Your task to perform on an android device: Open Yahoo.com Image 0: 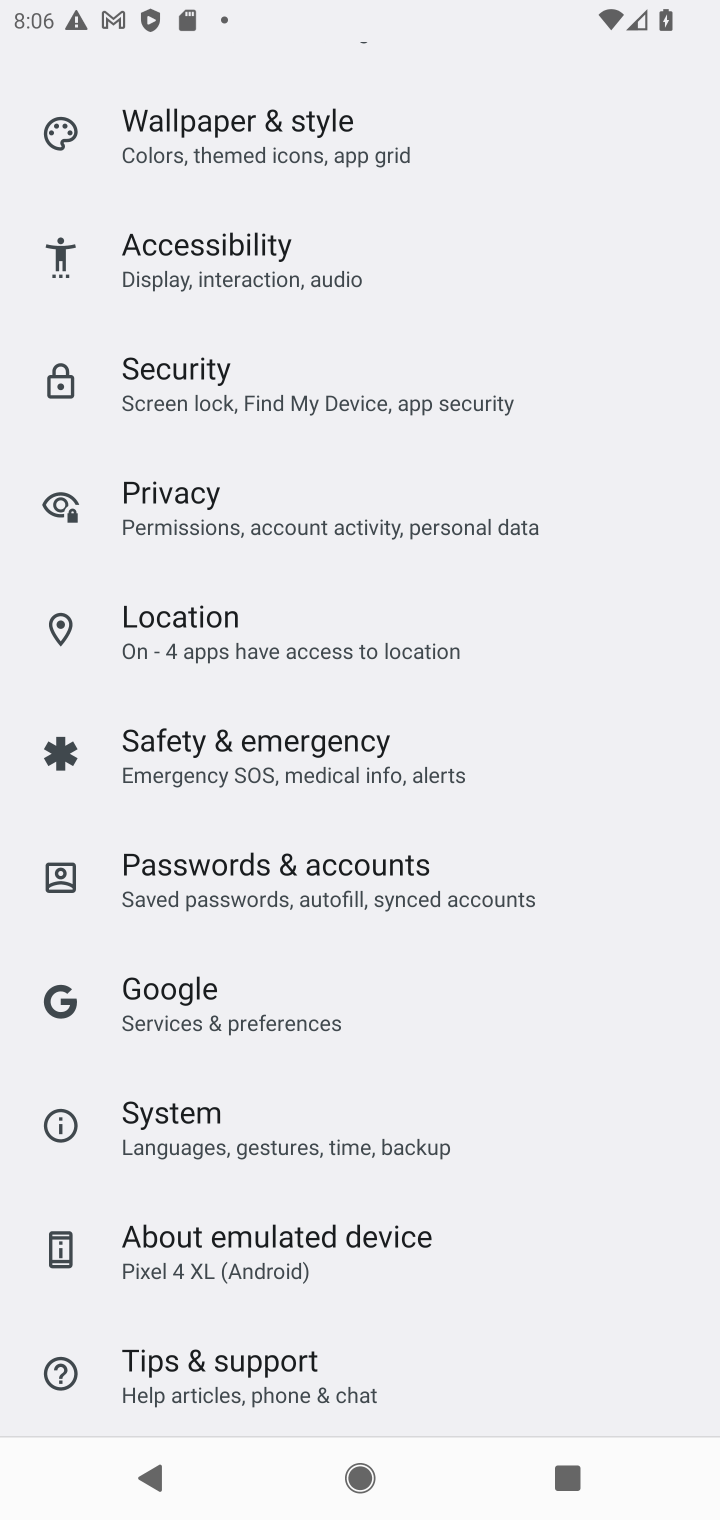
Step 0: press back button
Your task to perform on an android device: Open Yahoo.com Image 1: 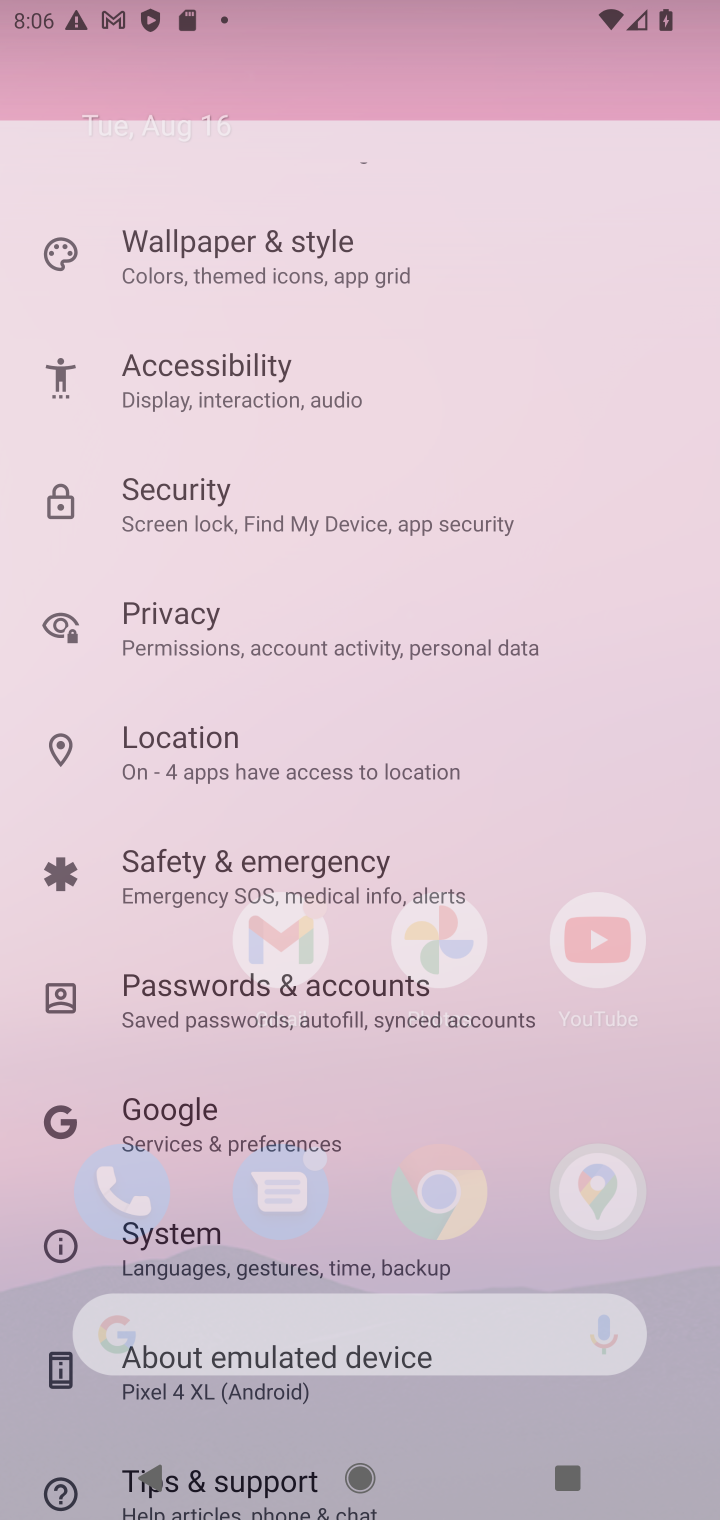
Step 1: press home button
Your task to perform on an android device: Open Yahoo.com Image 2: 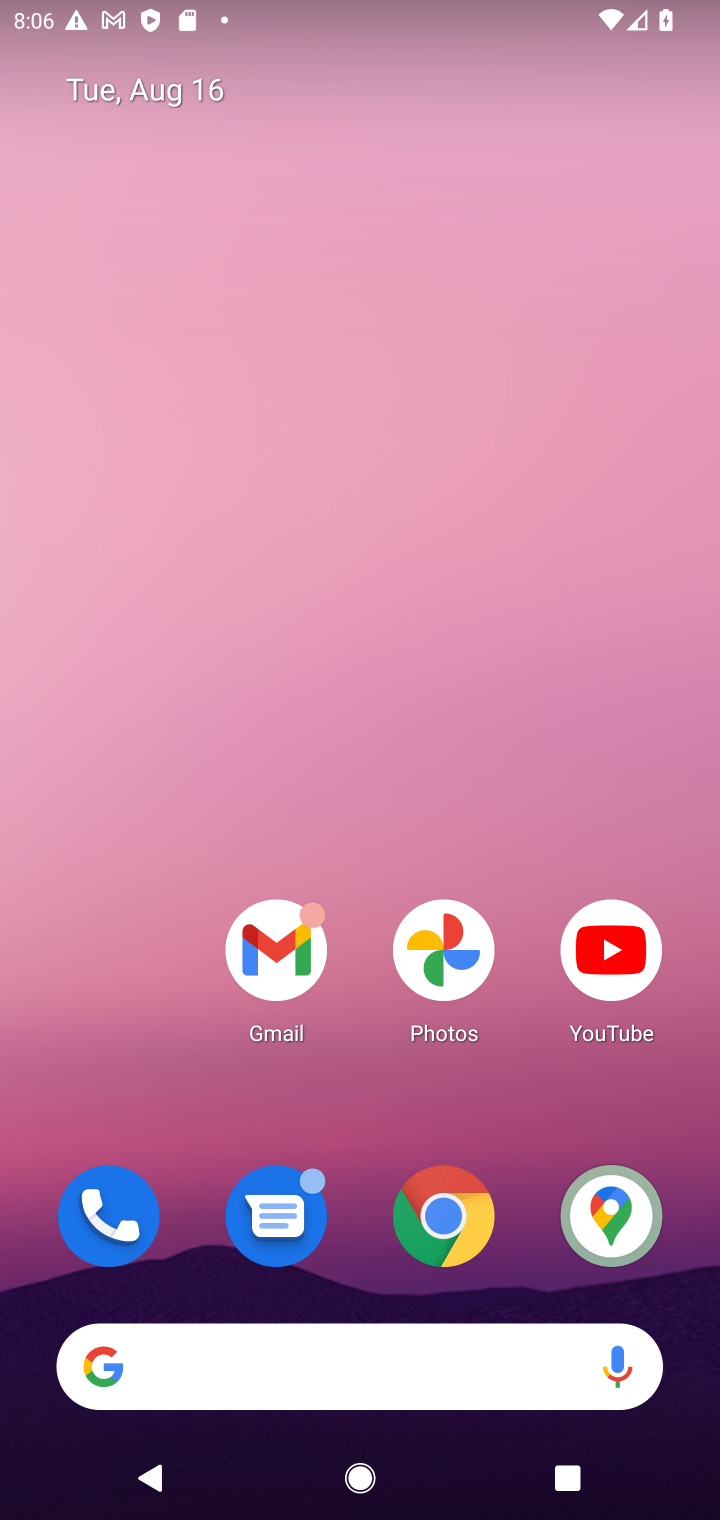
Step 2: click (426, 1251)
Your task to perform on an android device: Open Yahoo.com Image 3: 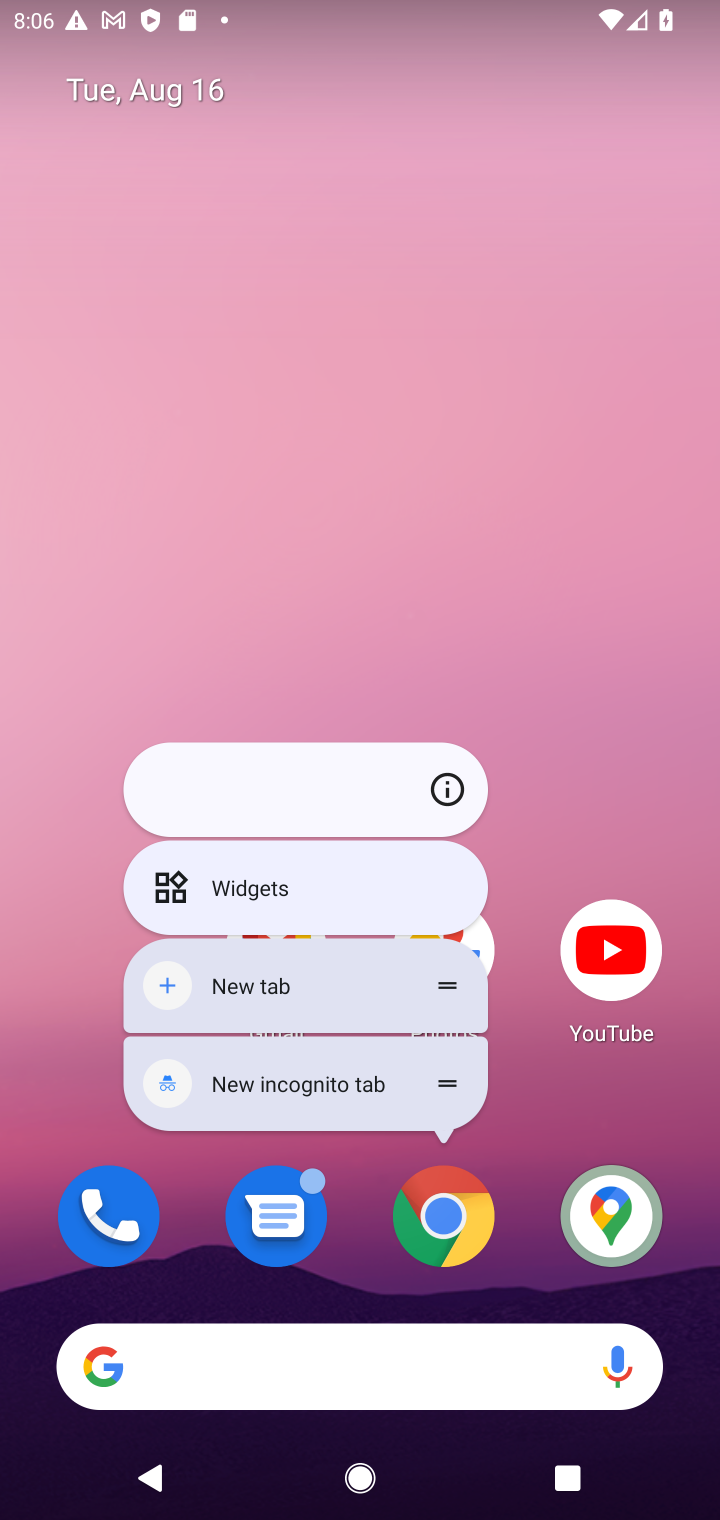
Step 3: click (427, 1203)
Your task to perform on an android device: Open Yahoo.com Image 4: 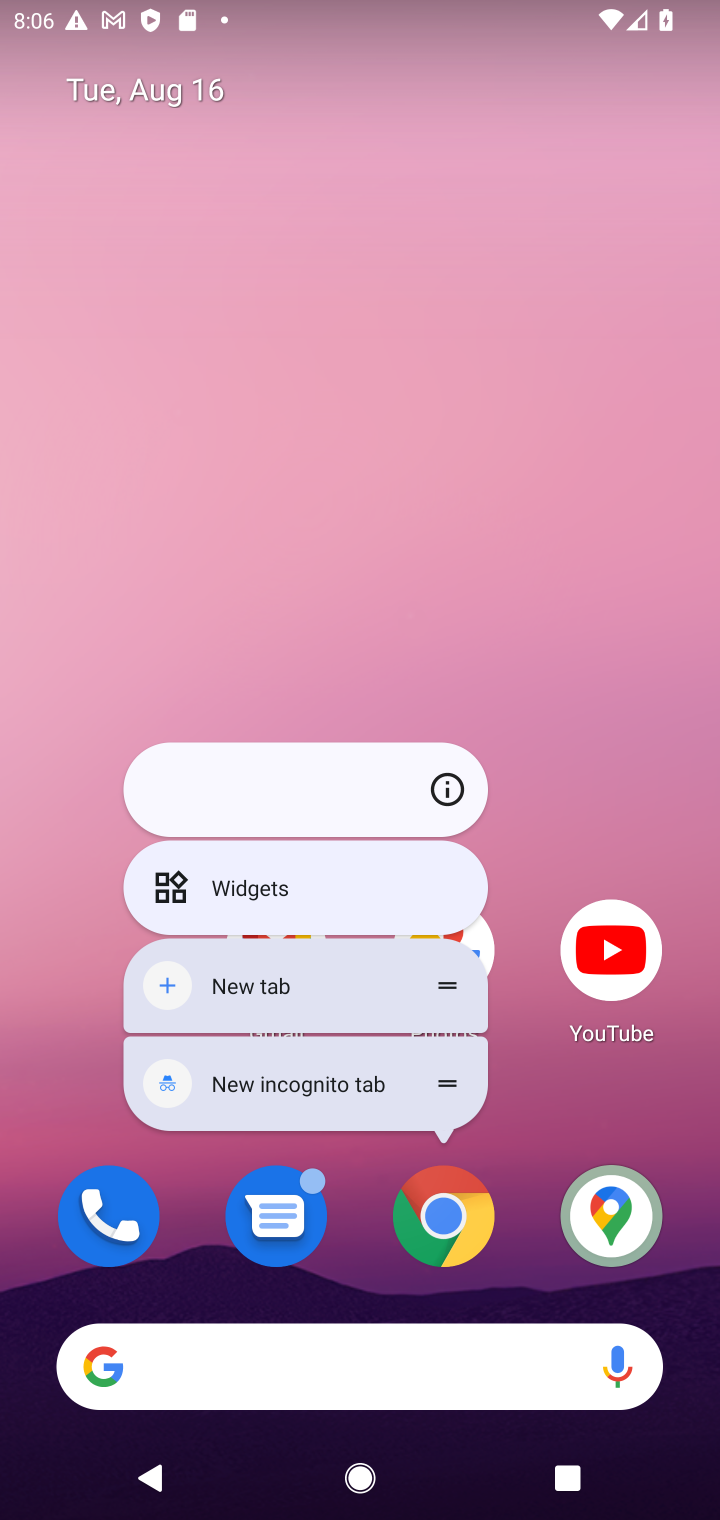
Step 4: click (445, 1222)
Your task to perform on an android device: Open Yahoo.com Image 5: 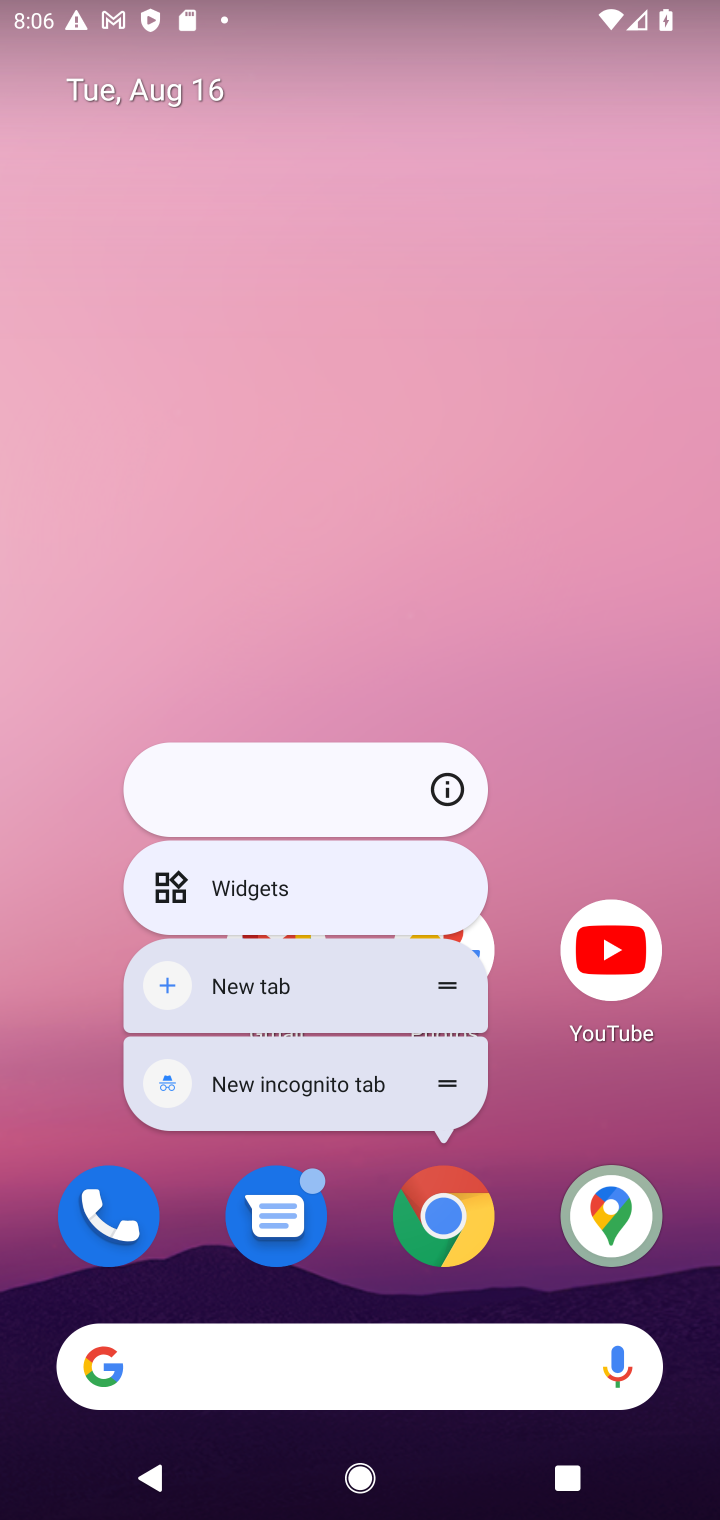
Step 5: click (462, 1237)
Your task to perform on an android device: Open Yahoo.com Image 6: 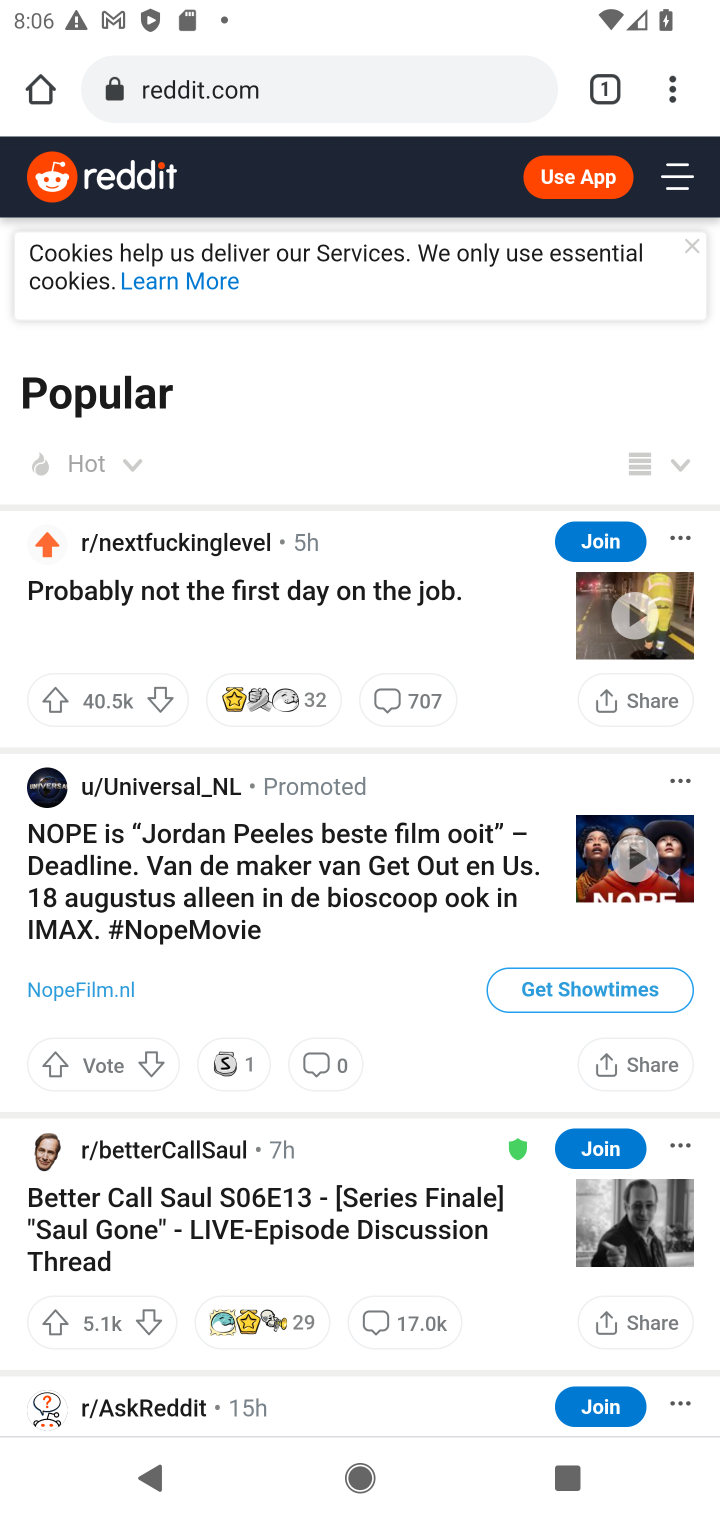
Step 6: click (599, 93)
Your task to perform on an android device: Open Yahoo.com Image 7: 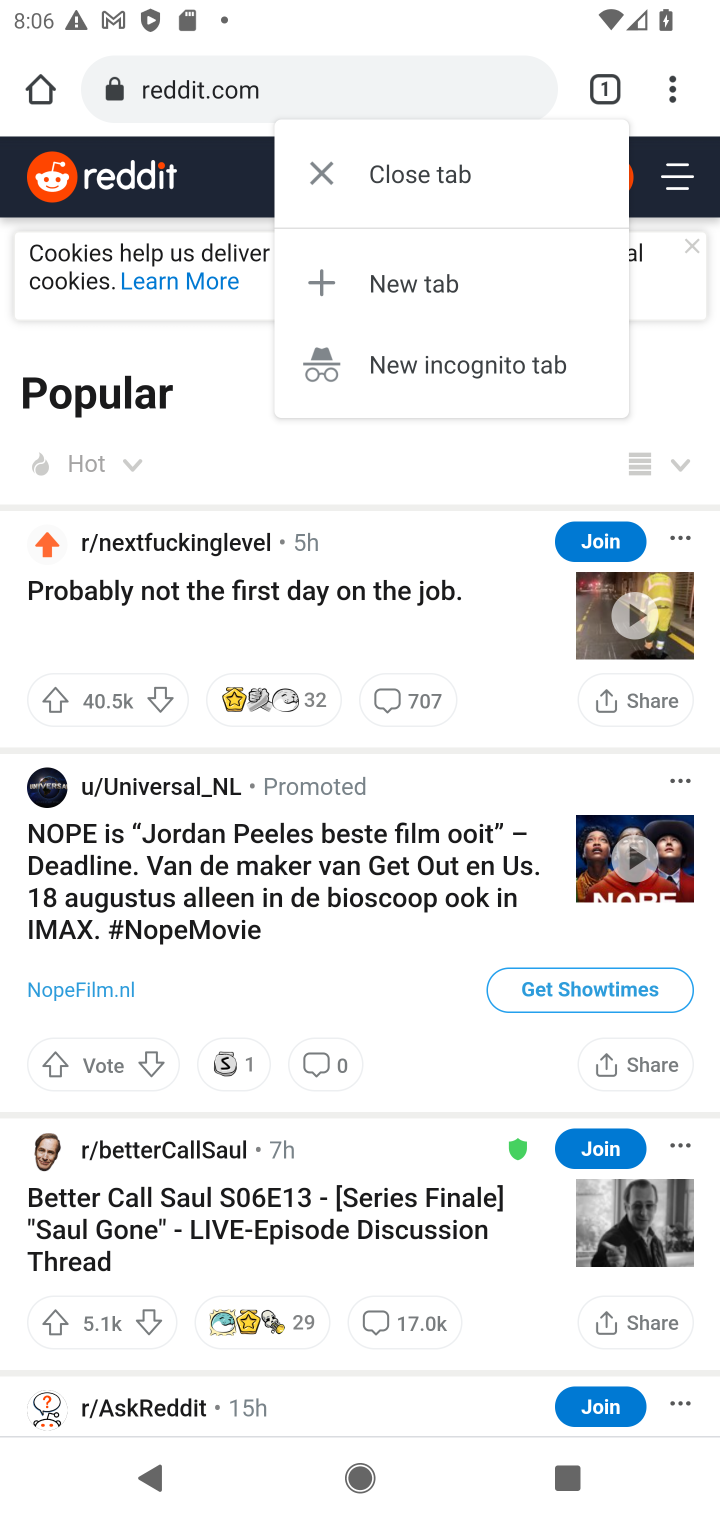
Step 7: click (373, 279)
Your task to perform on an android device: Open Yahoo.com Image 8: 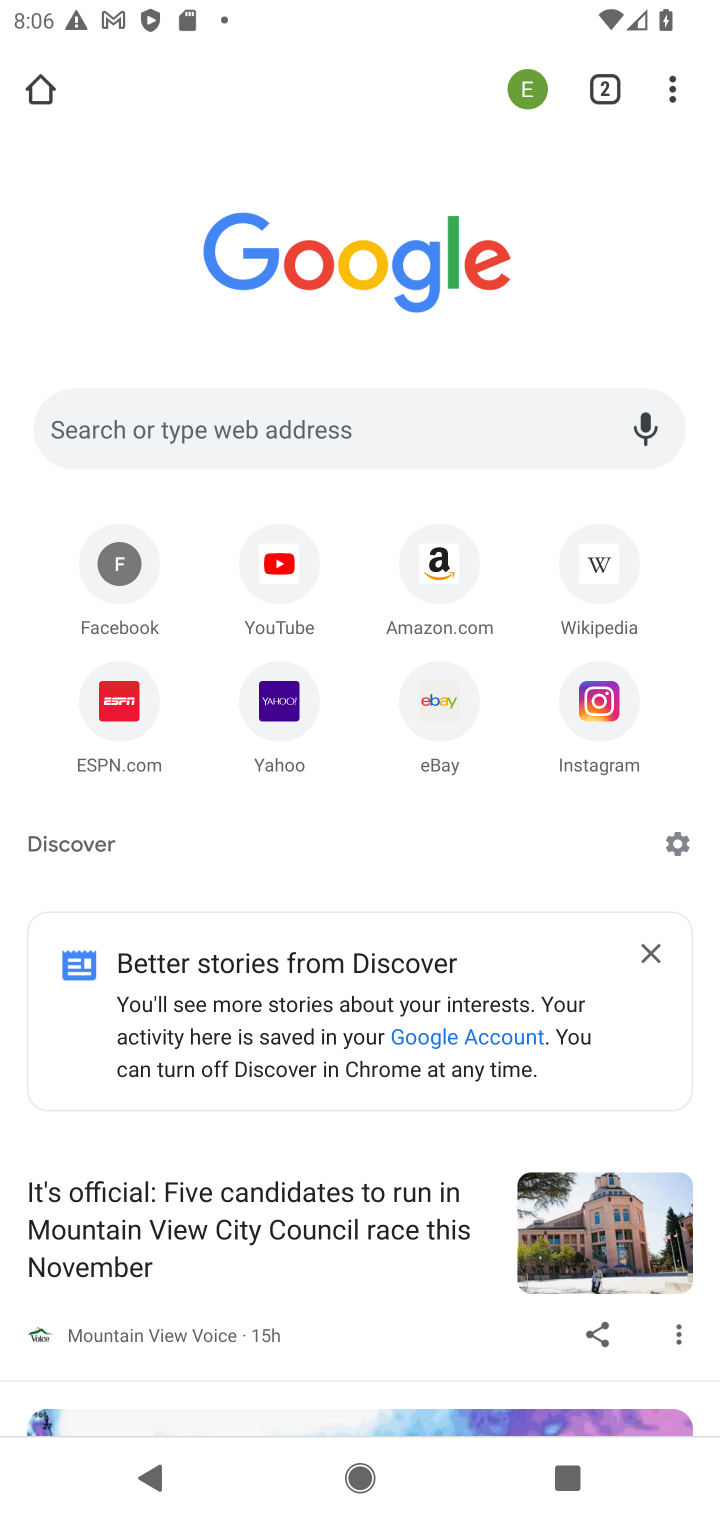
Step 8: click (279, 673)
Your task to perform on an android device: Open Yahoo.com Image 9: 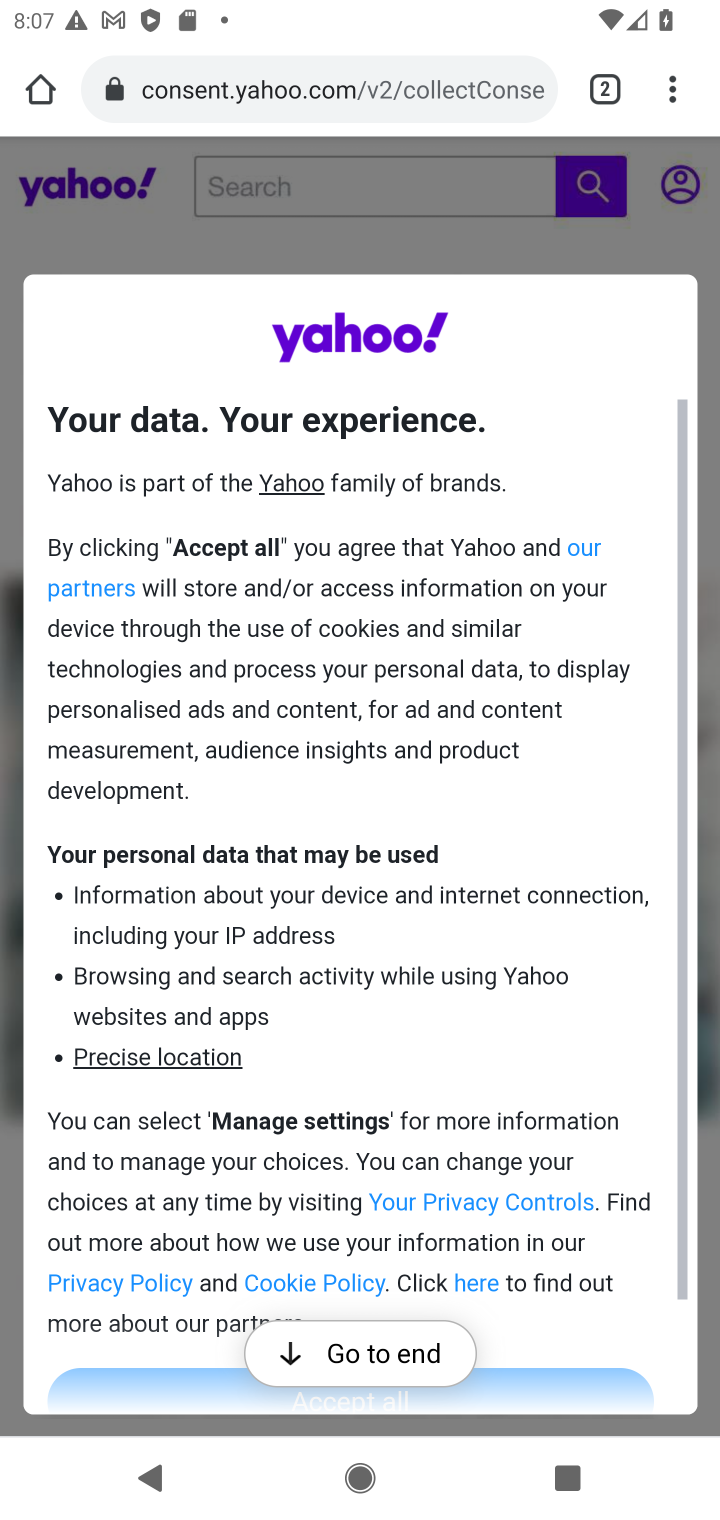
Step 9: click (358, 1344)
Your task to perform on an android device: Open Yahoo.com Image 10: 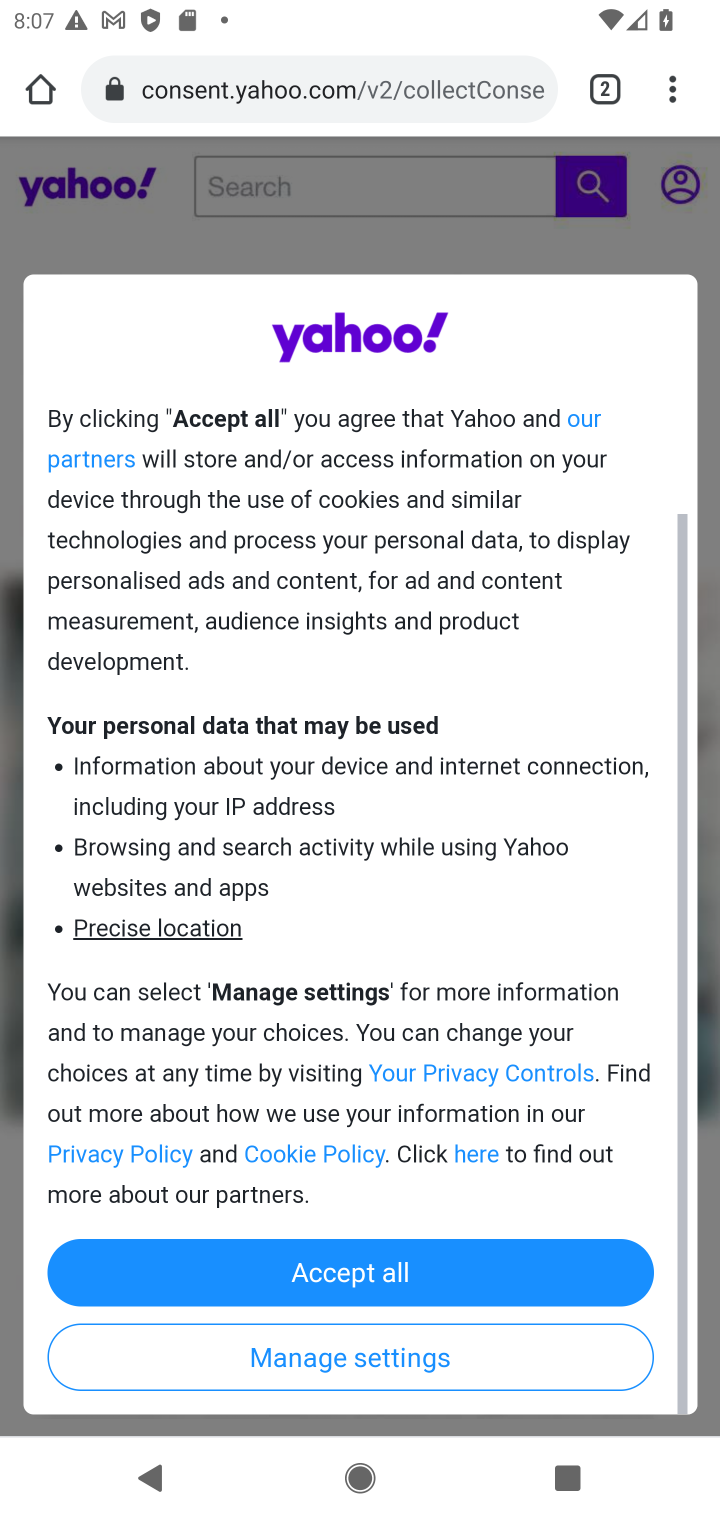
Step 10: click (371, 1257)
Your task to perform on an android device: Open Yahoo.com Image 11: 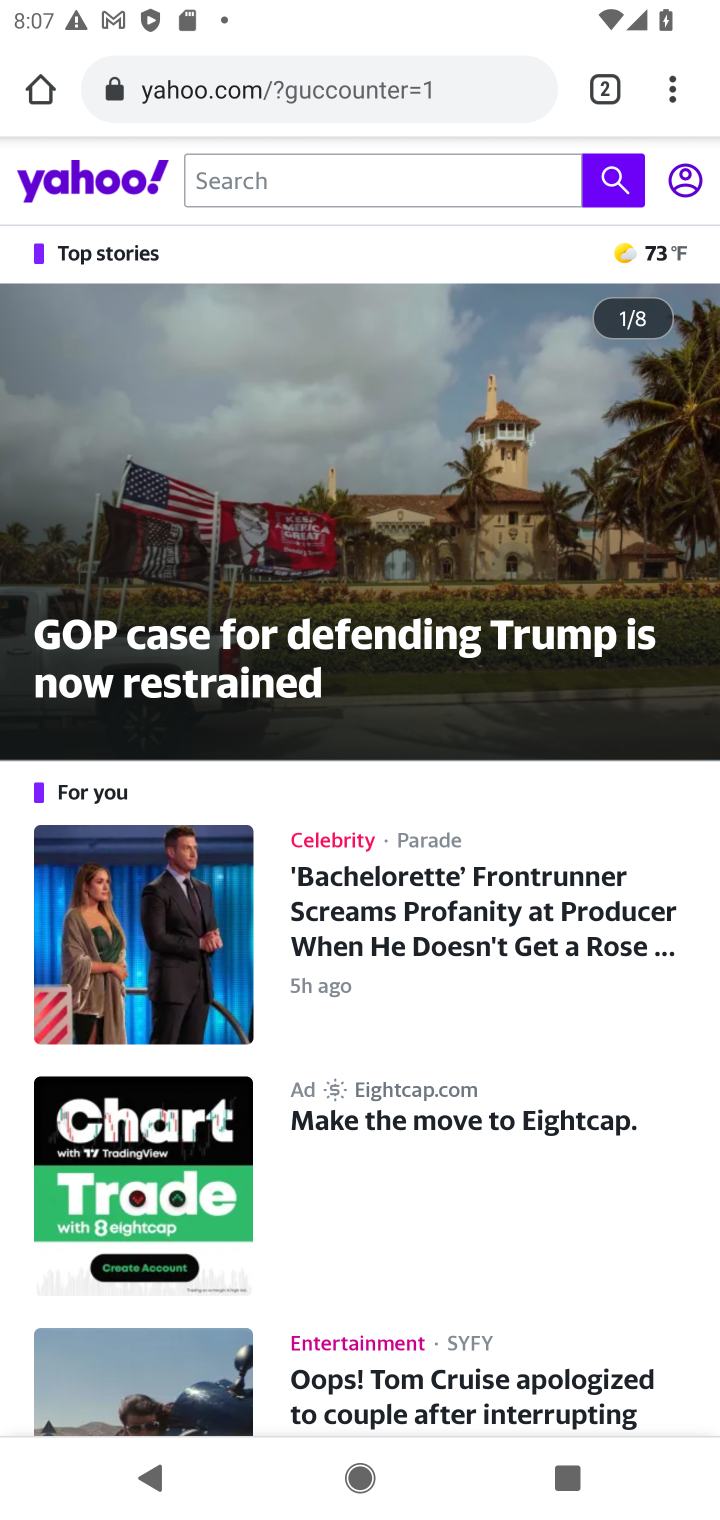
Step 11: task complete